Your task to perform on an android device: find which apps use the phone's location Image 0: 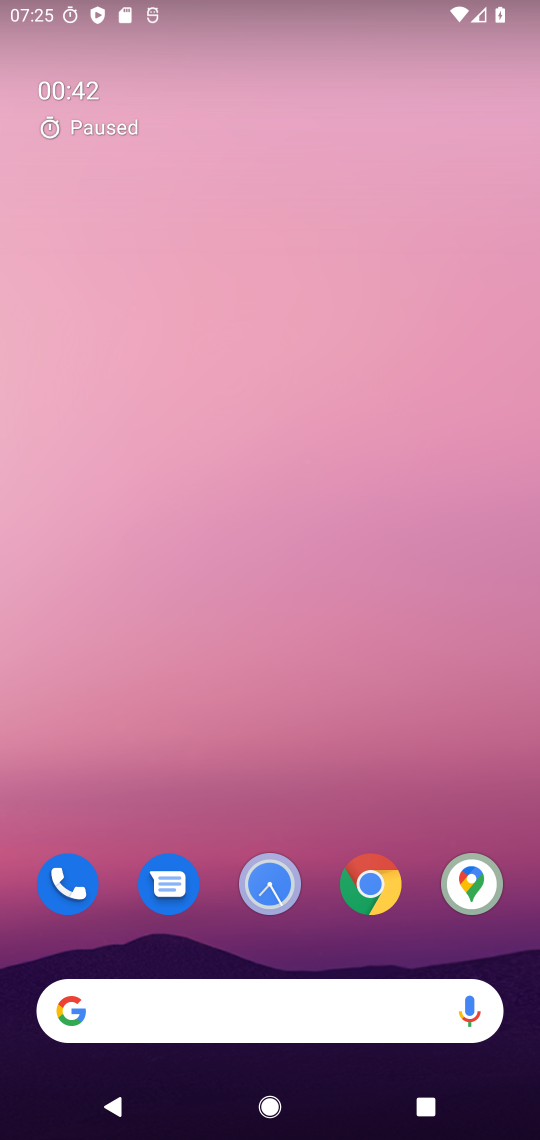
Step 0: press home button
Your task to perform on an android device: find which apps use the phone's location Image 1: 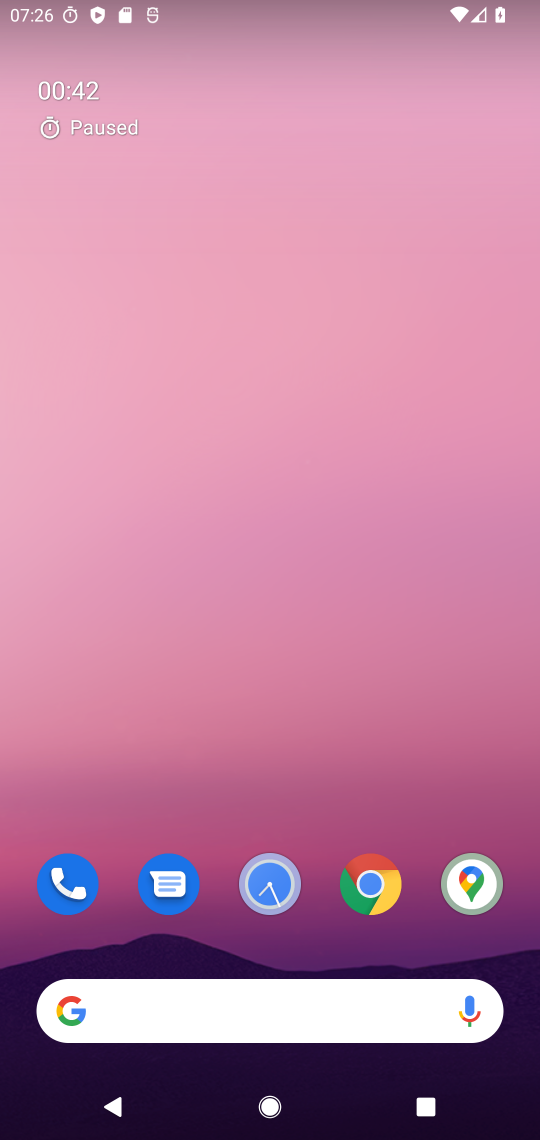
Step 1: drag from (433, 800) to (368, 168)
Your task to perform on an android device: find which apps use the phone's location Image 2: 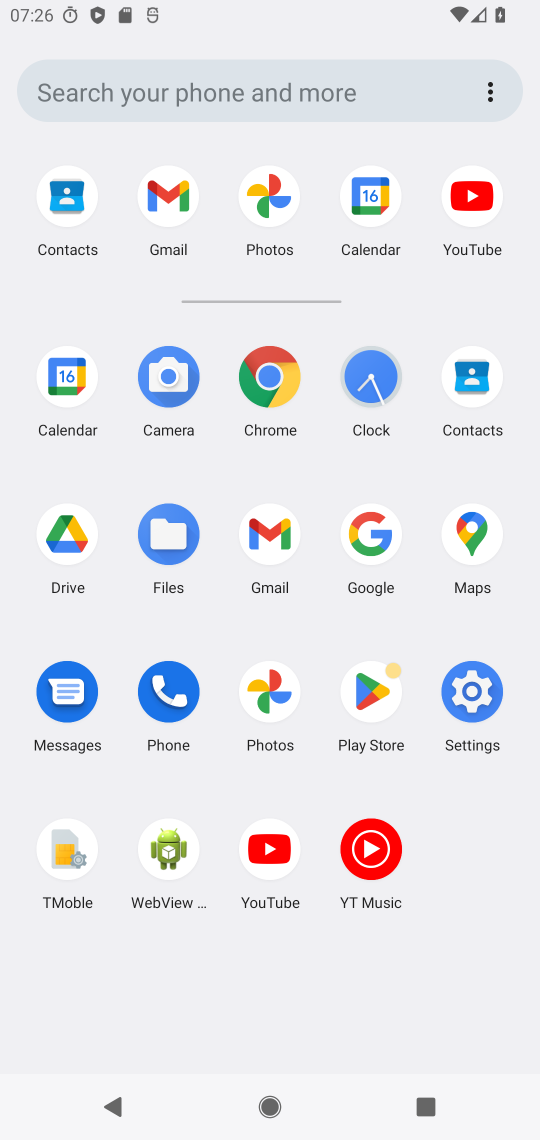
Step 2: click (474, 689)
Your task to perform on an android device: find which apps use the phone's location Image 3: 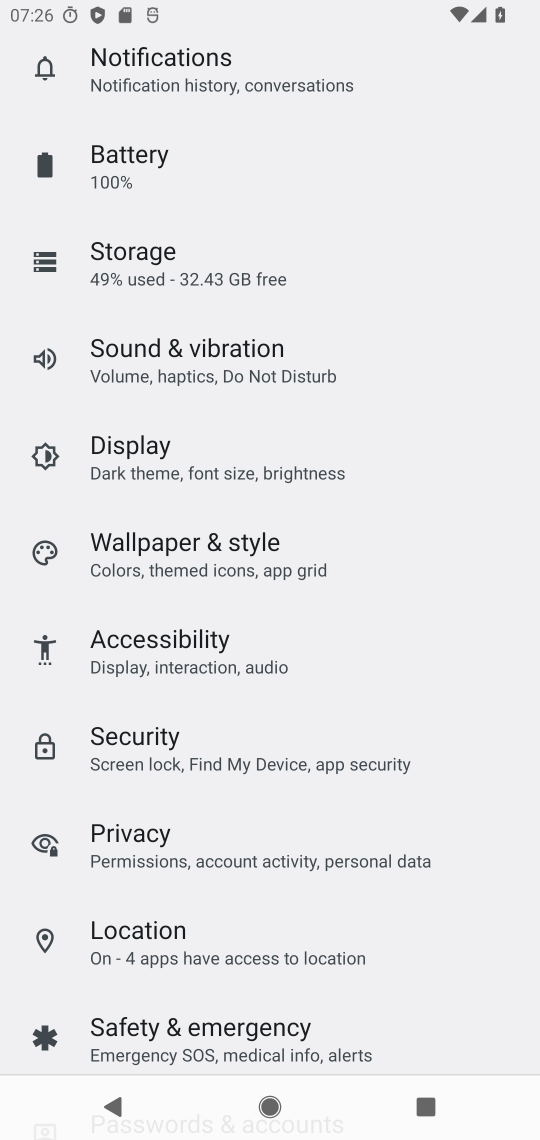
Step 3: drag from (217, 203) to (214, 641)
Your task to perform on an android device: find which apps use the phone's location Image 4: 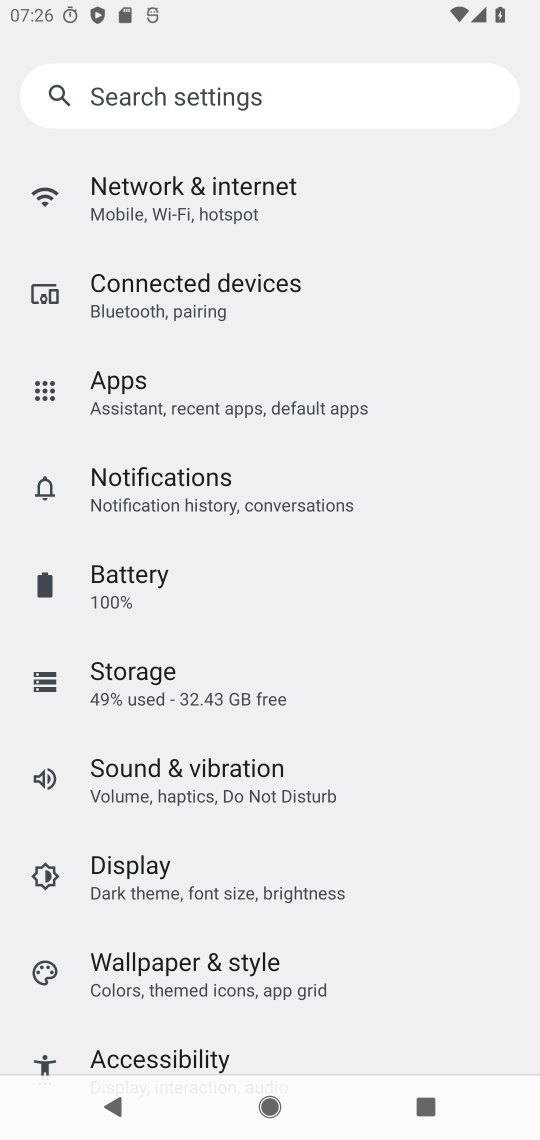
Step 4: drag from (204, 831) to (239, 244)
Your task to perform on an android device: find which apps use the phone's location Image 5: 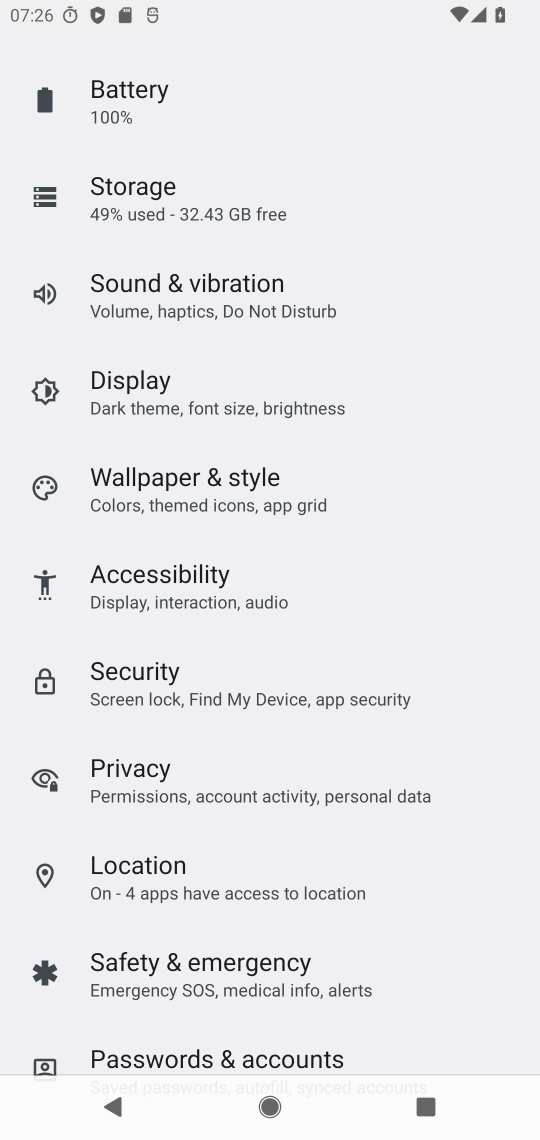
Step 5: click (204, 893)
Your task to perform on an android device: find which apps use the phone's location Image 6: 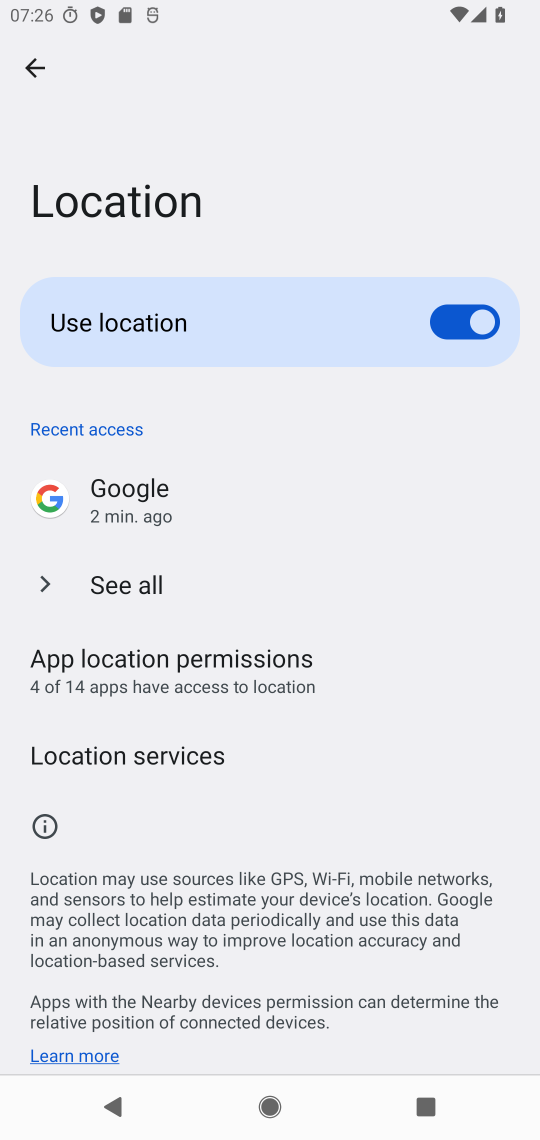
Step 6: click (128, 682)
Your task to perform on an android device: find which apps use the phone's location Image 7: 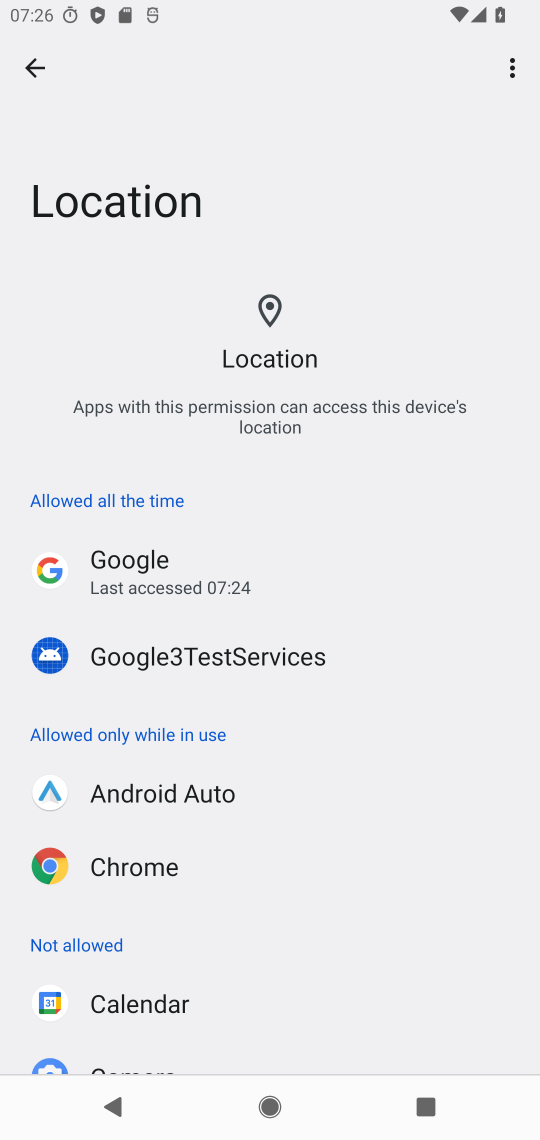
Step 7: task complete